Your task to perform on an android device: Open Chrome and go to settings Image 0: 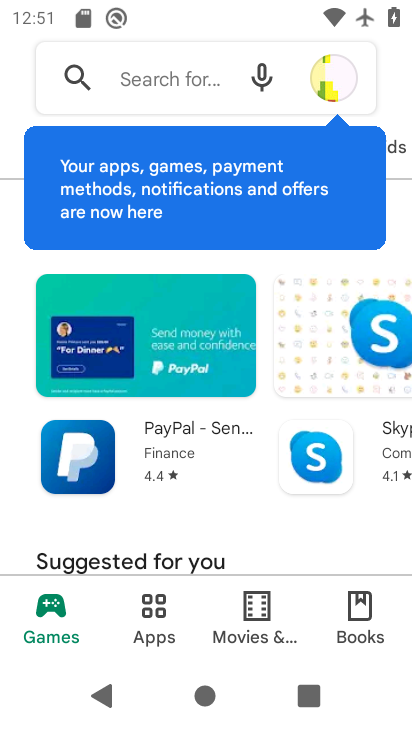
Step 0: press home button
Your task to perform on an android device: Open Chrome and go to settings Image 1: 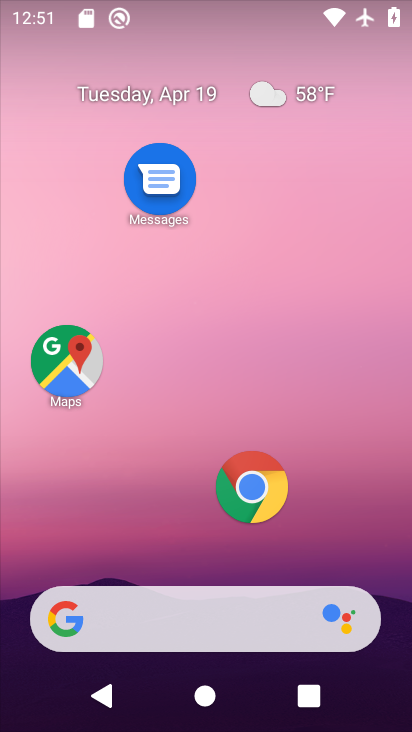
Step 1: drag from (226, 430) to (240, 151)
Your task to perform on an android device: Open Chrome and go to settings Image 2: 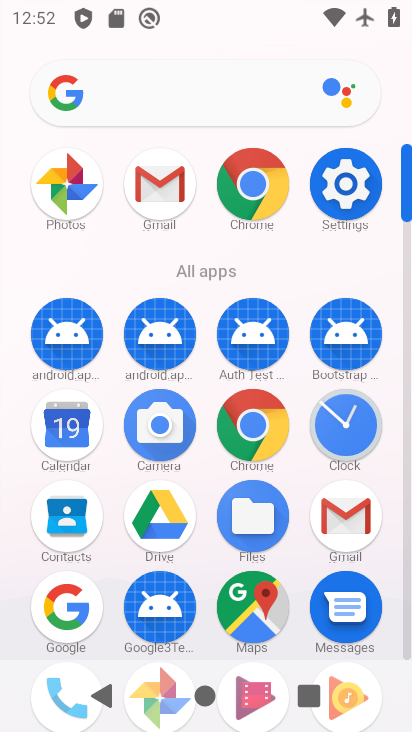
Step 2: drag from (205, 609) to (201, 323)
Your task to perform on an android device: Open Chrome and go to settings Image 3: 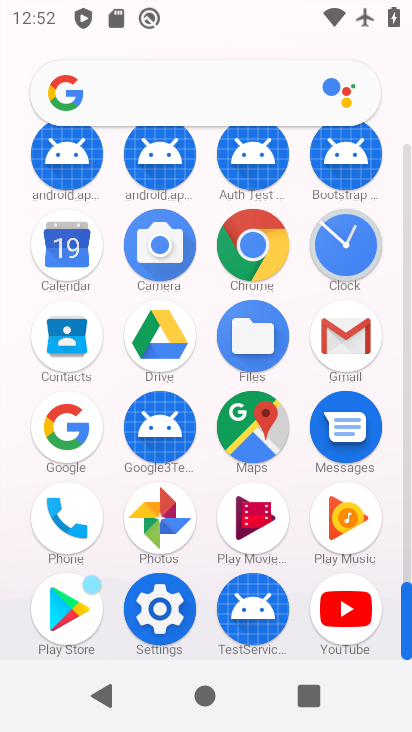
Step 3: click (257, 247)
Your task to perform on an android device: Open Chrome and go to settings Image 4: 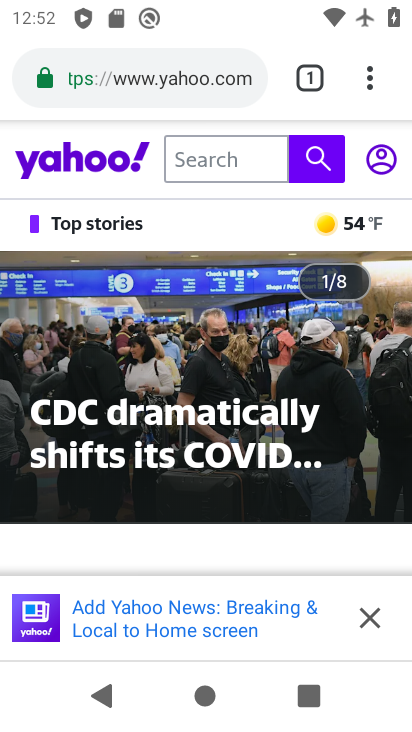
Step 4: click (371, 68)
Your task to perform on an android device: Open Chrome and go to settings Image 5: 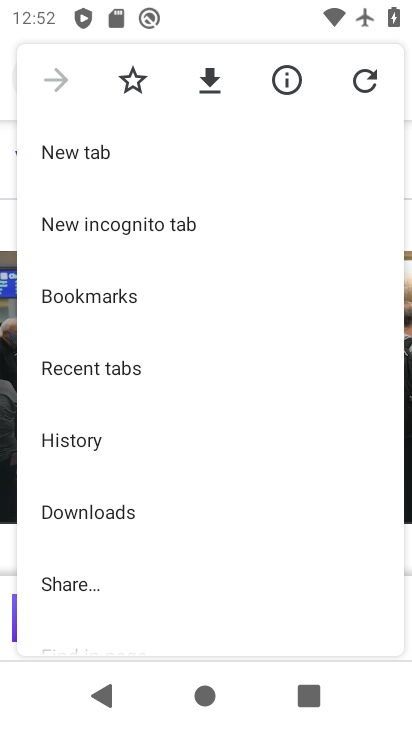
Step 5: drag from (83, 609) to (83, 297)
Your task to perform on an android device: Open Chrome and go to settings Image 6: 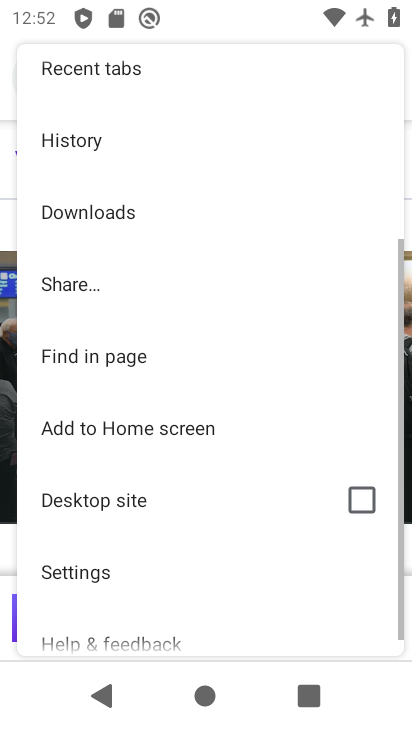
Step 6: click (85, 566)
Your task to perform on an android device: Open Chrome and go to settings Image 7: 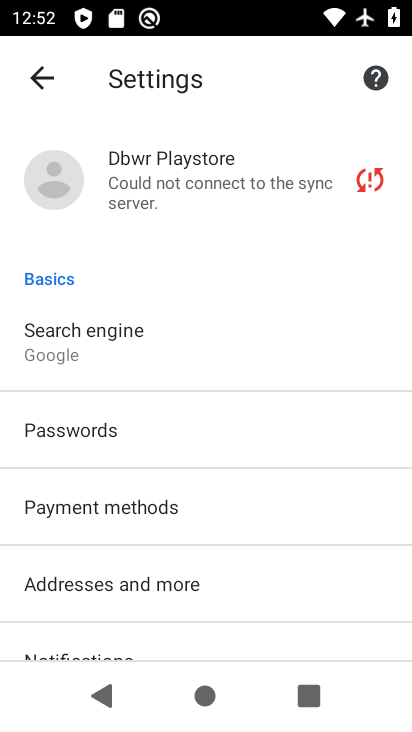
Step 7: task complete